Your task to perform on an android device: change keyboard looks Image 0: 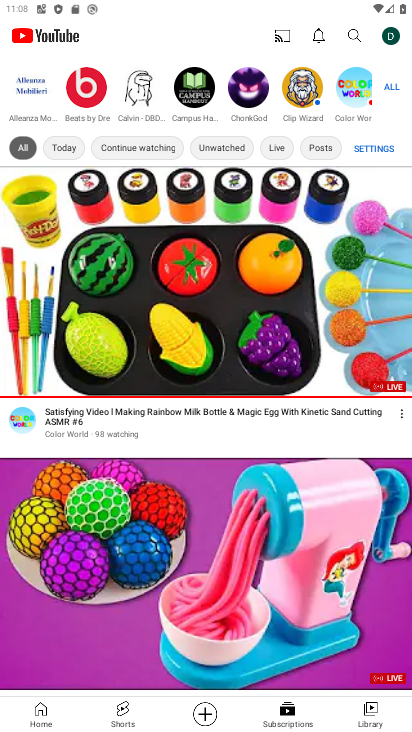
Step 0: press home button
Your task to perform on an android device: change keyboard looks Image 1: 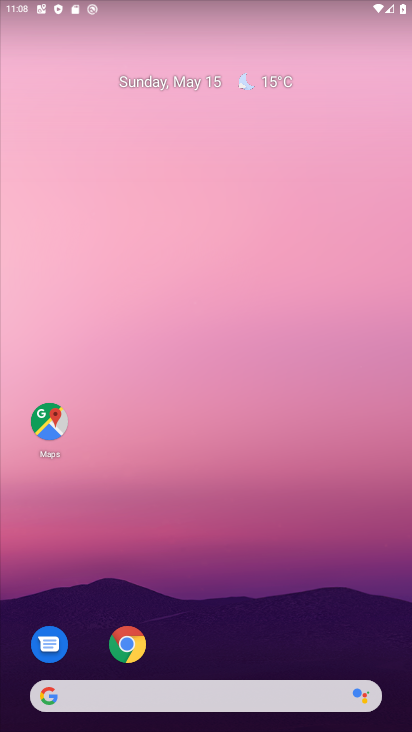
Step 1: drag from (317, 630) to (269, 59)
Your task to perform on an android device: change keyboard looks Image 2: 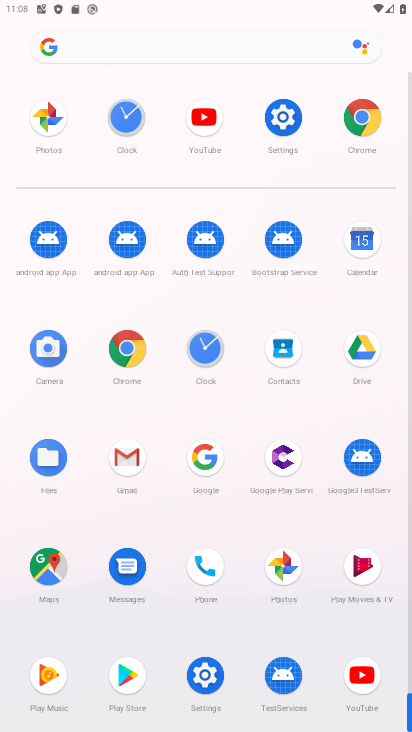
Step 2: click (284, 130)
Your task to perform on an android device: change keyboard looks Image 3: 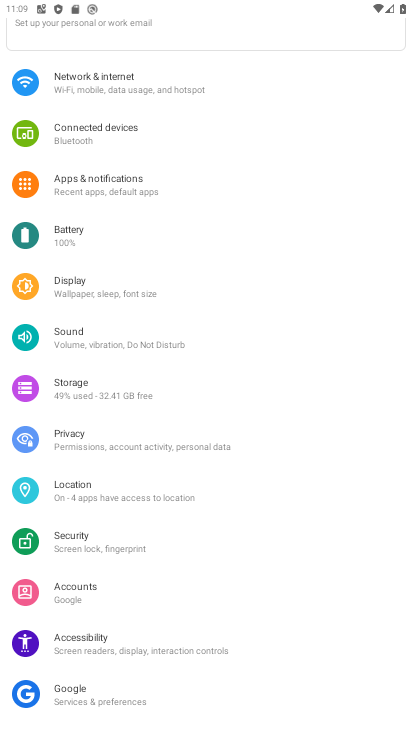
Step 3: drag from (267, 681) to (222, 160)
Your task to perform on an android device: change keyboard looks Image 4: 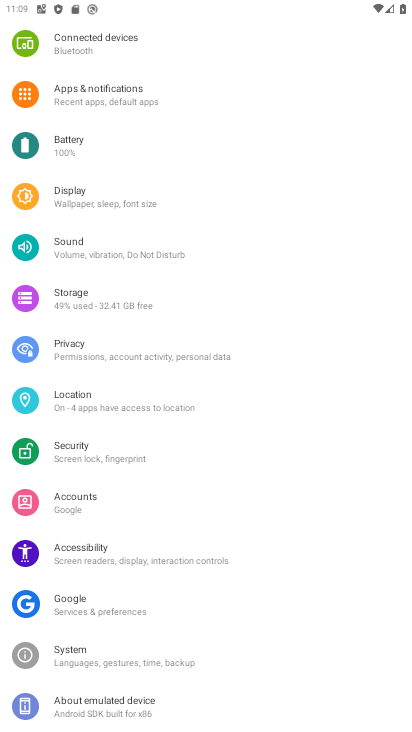
Step 4: click (97, 701)
Your task to perform on an android device: change keyboard looks Image 5: 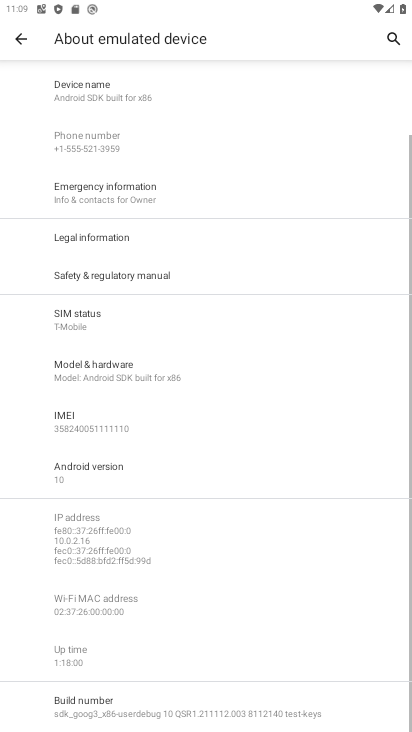
Step 5: drag from (142, 472) to (128, 22)
Your task to perform on an android device: change keyboard looks Image 6: 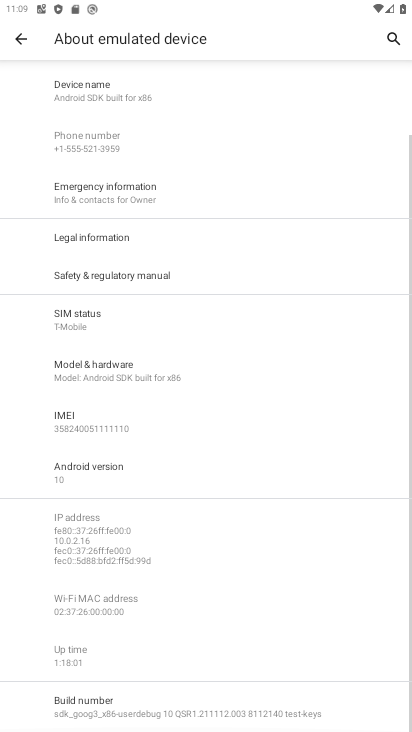
Step 6: click (19, 41)
Your task to perform on an android device: change keyboard looks Image 7: 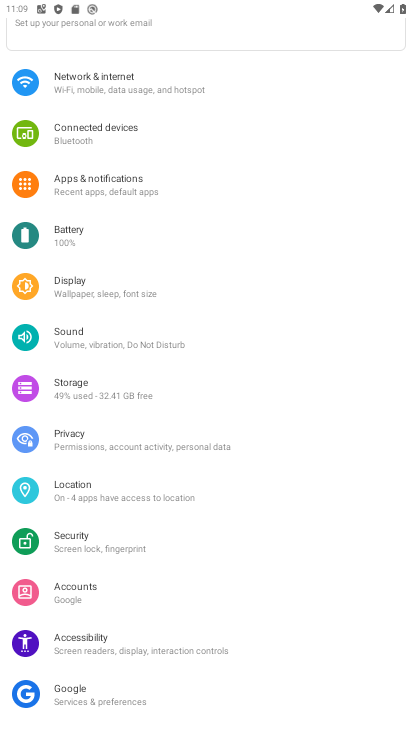
Step 7: drag from (93, 677) to (117, 206)
Your task to perform on an android device: change keyboard looks Image 8: 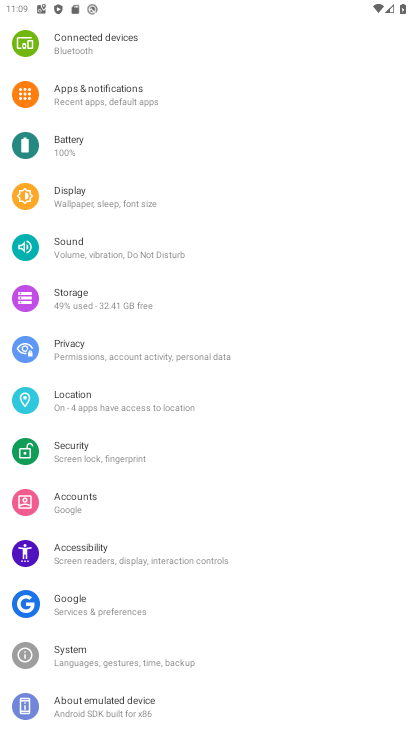
Step 8: click (104, 667)
Your task to perform on an android device: change keyboard looks Image 9: 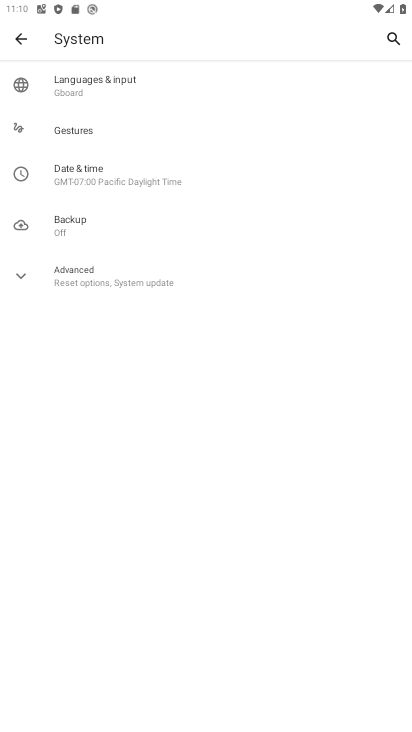
Step 9: click (145, 80)
Your task to perform on an android device: change keyboard looks Image 10: 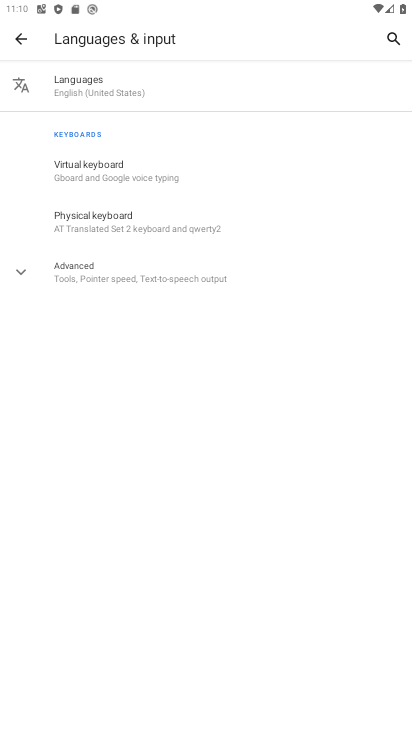
Step 10: click (91, 164)
Your task to perform on an android device: change keyboard looks Image 11: 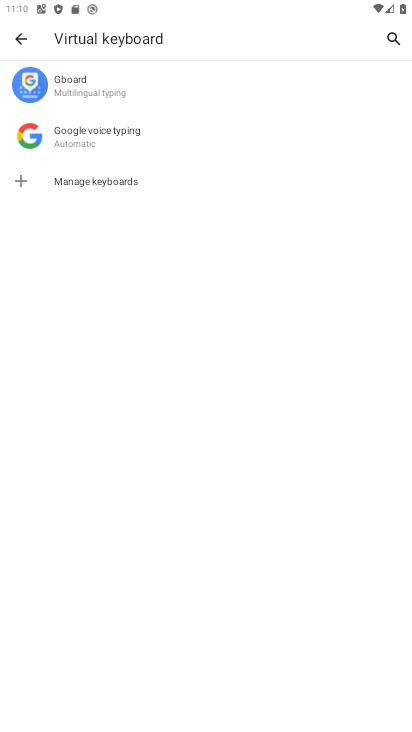
Step 11: click (87, 104)
Your task to perform on an android device: change keyboard looks Image 12: 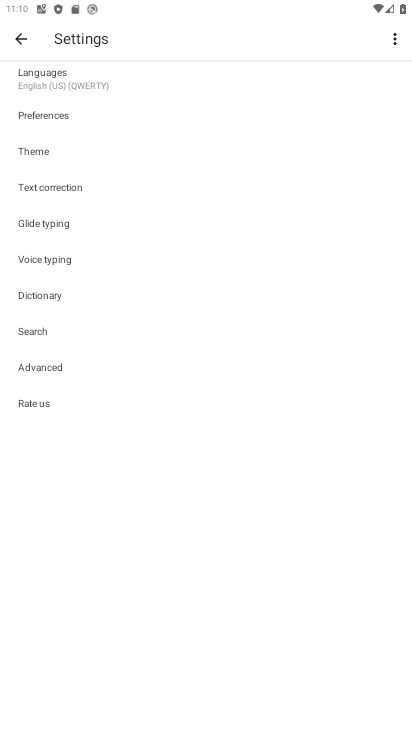
Step 12: click (71, 152)
Your task to perform on an android device: change keyboard looks Image 13: 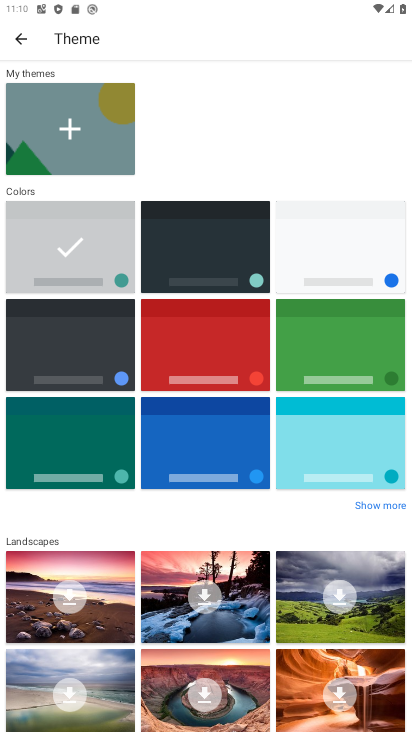
Step 13: click (196, 429)
Your task to perform on an android device: change keyboard looks Image 14: 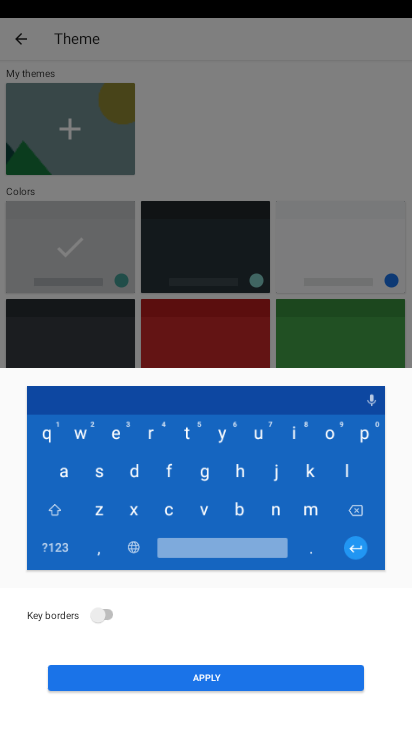
Step 14: click (309, 673)
Your task to perform on an android device: change keyboard looks Image 15: 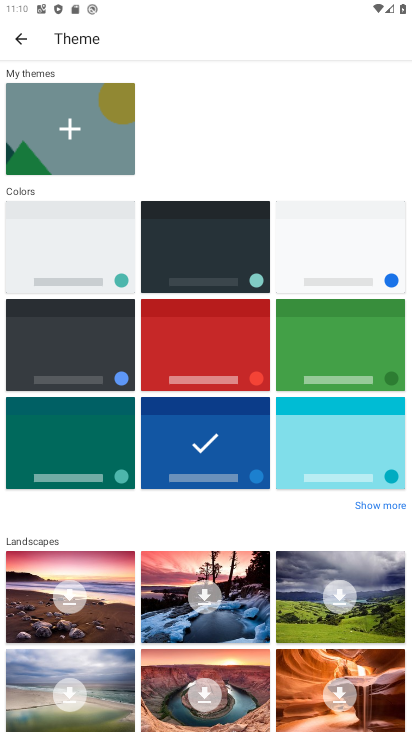
Step 15: task complete